Your task to perform on an android device: show emergency info Image 0: 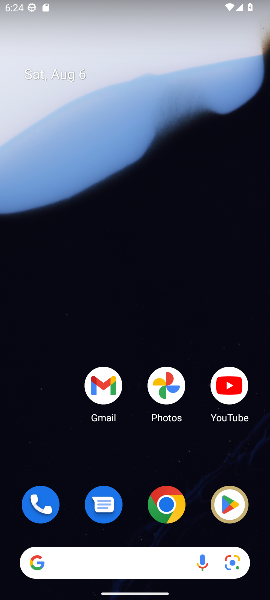
Step 0: drag from (104, 559) to (143, 257)
Your task to perform on an android device: show emergency info Image 1: 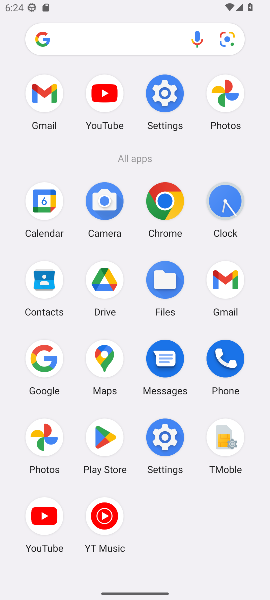
Step 1: click (165, 96)
Your task to perform on an android device: show emergency info Image 2: 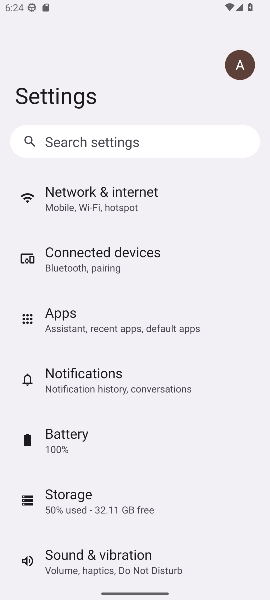
Step 2: drag from (114, 458) to (153, 378)
Your task to perform on an android device: show emergency info Image 3: 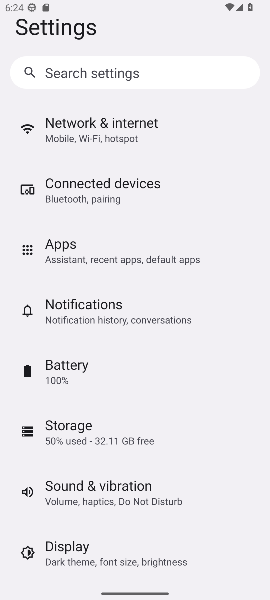
Step 3: drag from (112, 463) to (149, 376)
Your task to perform on an android device: show emergency info Image 4: 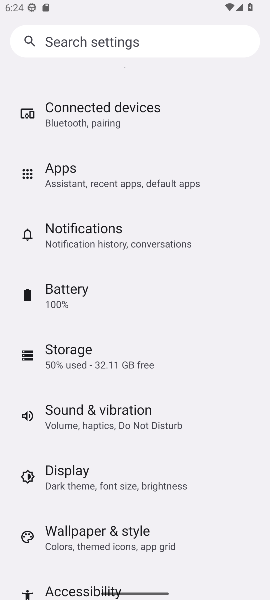
Step 4: drag from (88, 461) to (151, 381)
Your task to perform on an android device: show emergency info Image 5: 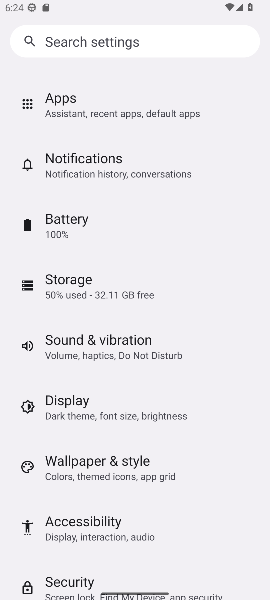
Step 5: drag from (101, 473) to (147, 369)
Your task to perform on an android device: show emergency info Image 6: 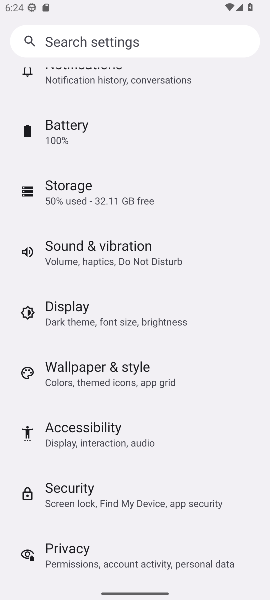
Step 6: drag from (76, 469) to (119, 391)
Your task to perform on an android device: show emergency info Image 7: 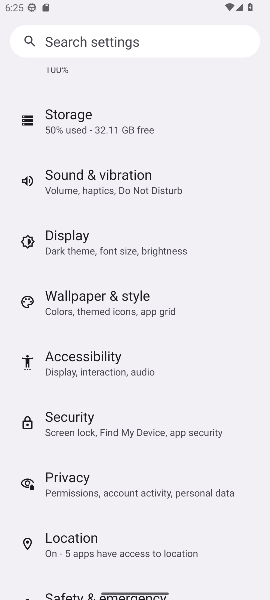
Step 7: drag from (106, 504) to (137, 392)
Your task to perform on an android device: show emergency info Image 8: 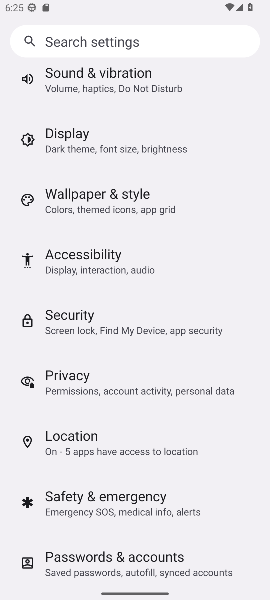
Step 8: click (140, 508)
Your task to perform on an android device: show emergency info Image 9: 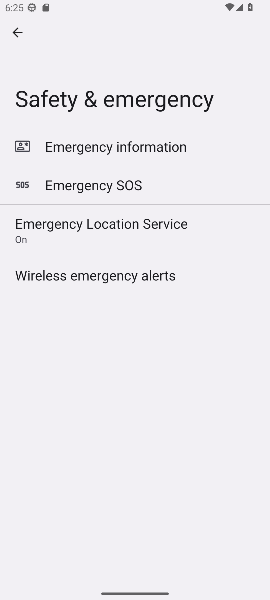
Step 9: click (173, 143)
Your task to perform on an android device: show emergency info Image 10: 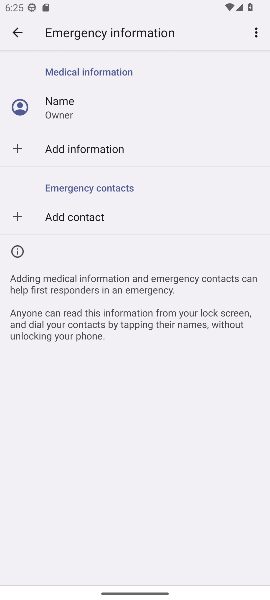
Step 10: task complete